Your task to perform on an android device: Go to Wikipedia Image 0: 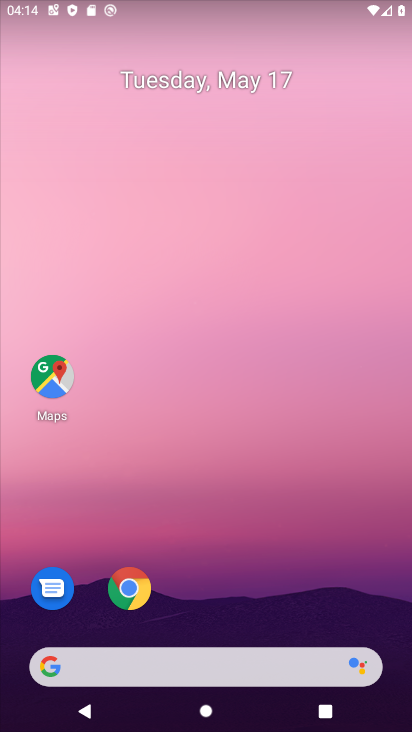
Step 0: drag from (266, 596) to (189, 72)
Your task to perform on an android device: Go to Wikipedia Image 1: 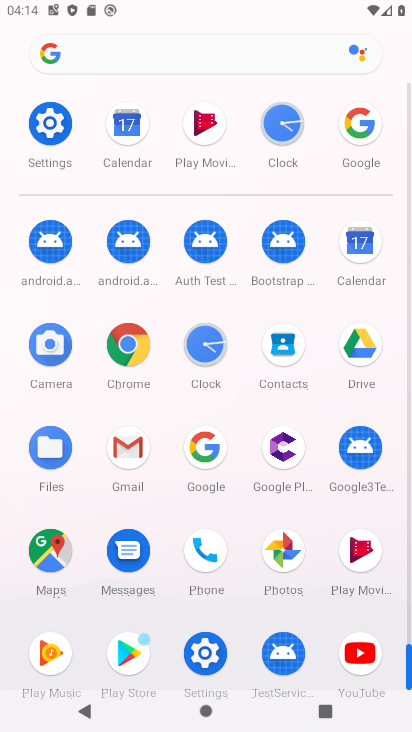
Step 1: click (356, 120)
Your task to perform on an android device: Go to Wikipedia Image 2: 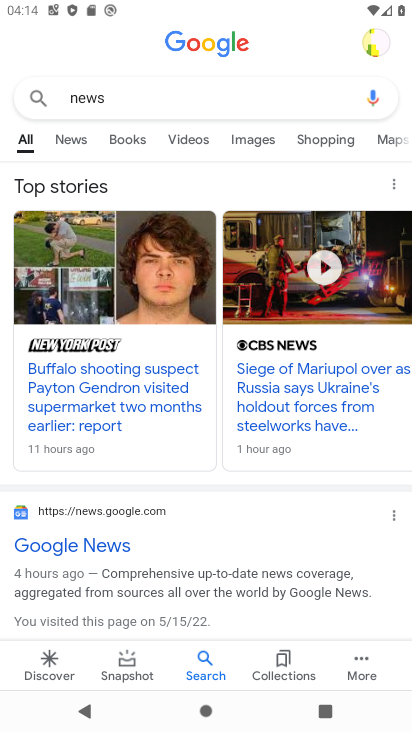
Step 2: click (181, 103)
Your task to perform on an android device: Go to Wikipedia Image 3: 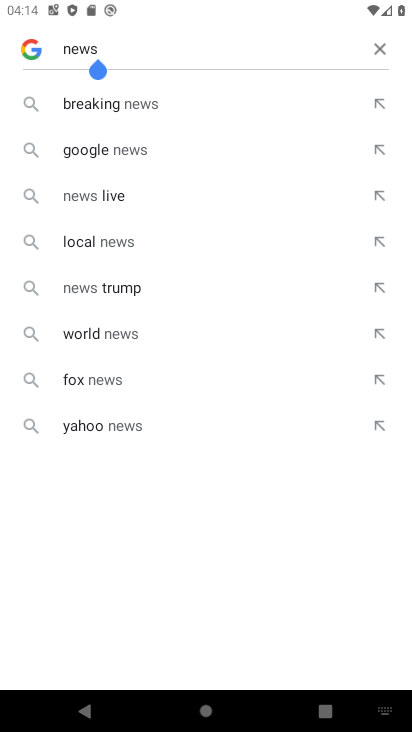
Step 3: click (382, 49)
Your task to perform on an android device: Go to Wikipedia Image 4: 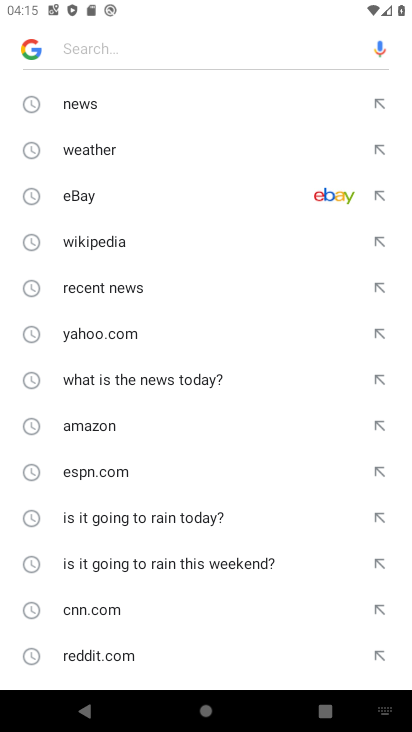
Step 4: type "Wikipedia"
Your task to perform on an android device: Go to Wikipedia Image 5: 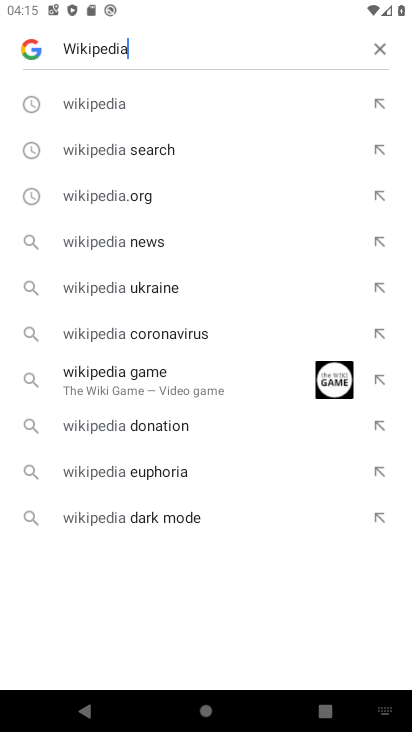
Step 5: click (73, 102)
Your task to perform on an android device: Go to Wikipedia Image 6: 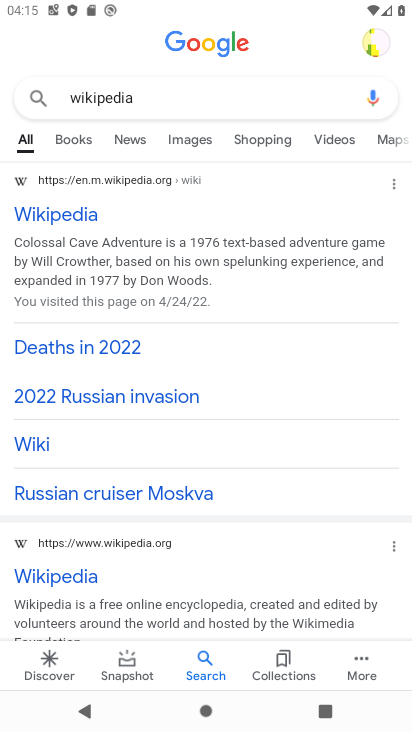
Step 6: click (67, 214)
Your task to perform on an android device: Go to Wikipedia Image 7: 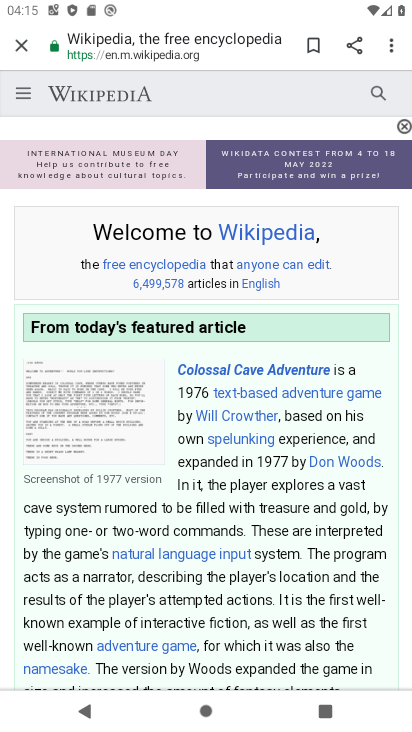
Step 7: task complete